Your task to perform on an android device: open app "Microsoft Excel" Image 0: 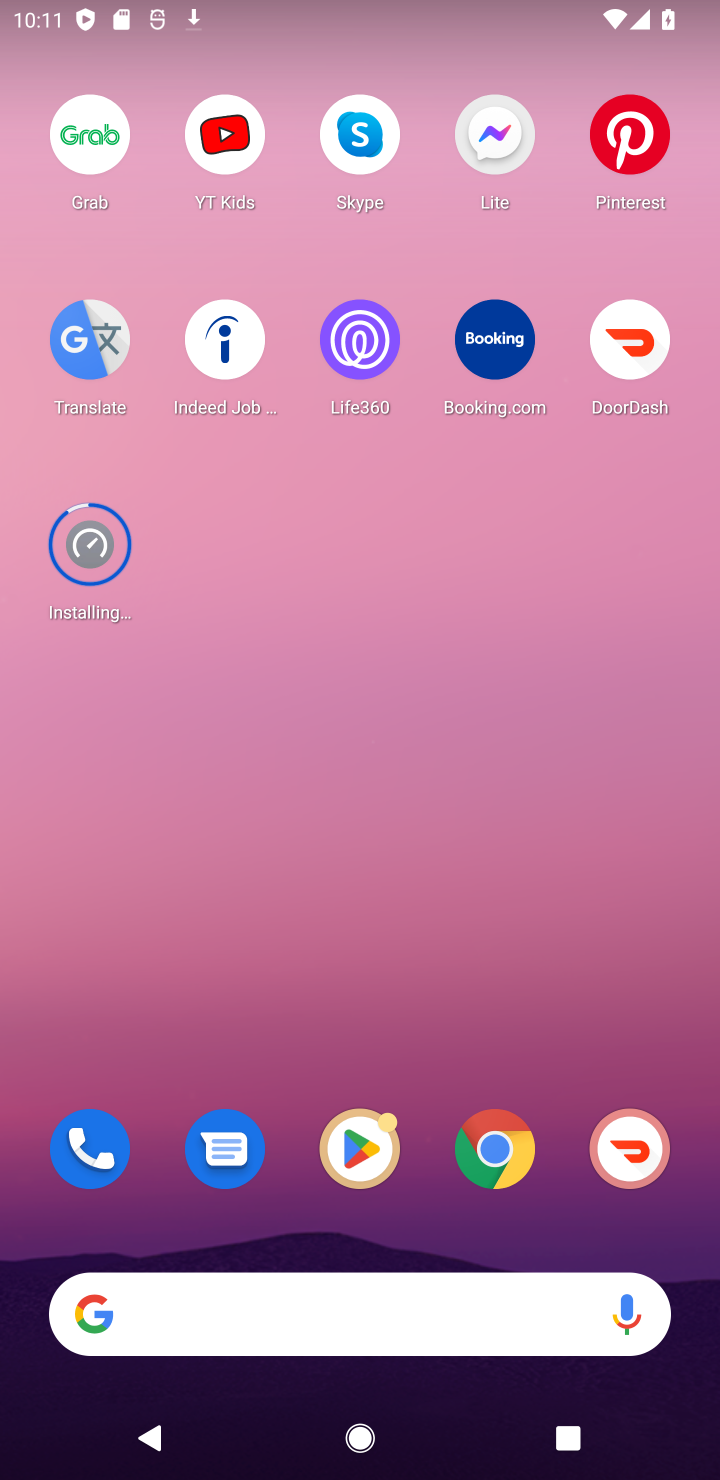
Step 0: click (379, 1136)
Your task to perform on an android device: open app "Microsoft Excel" Image 1: 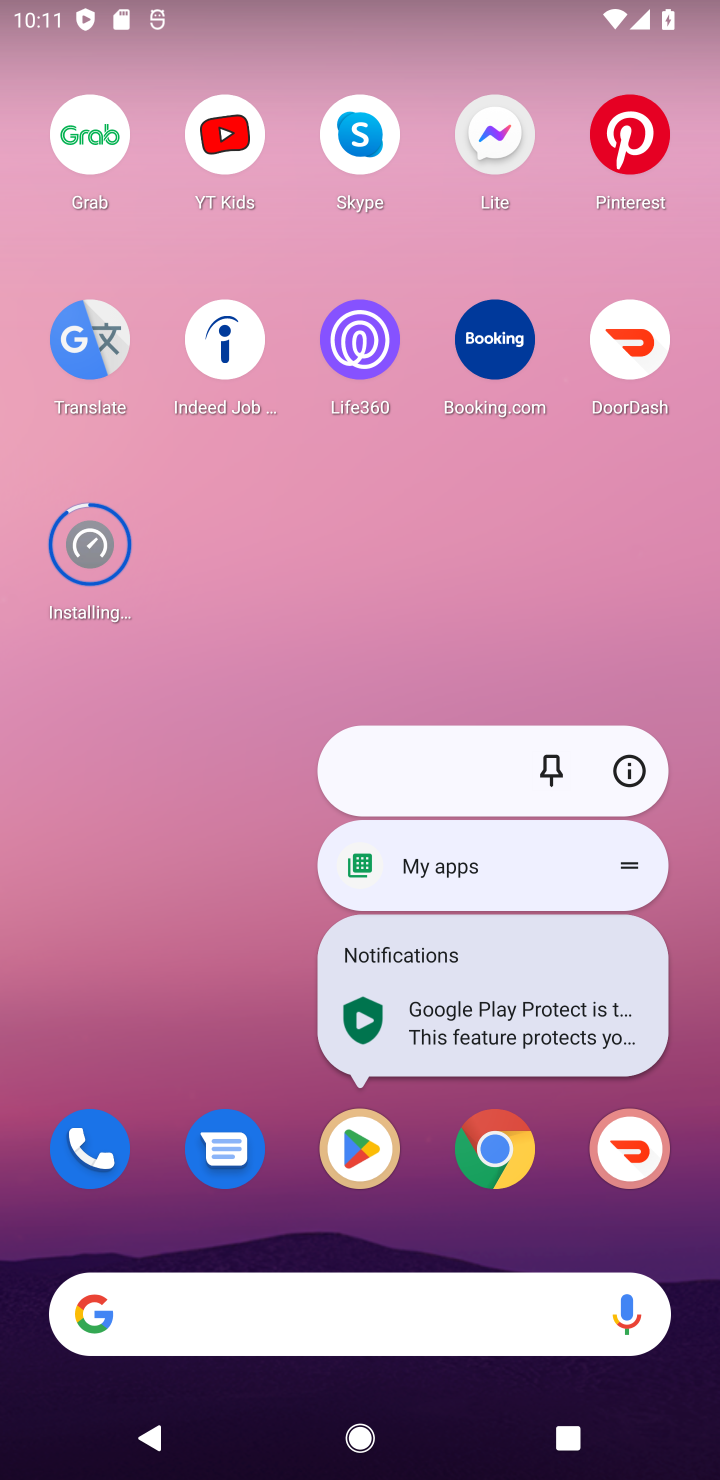
Step 1: click (249, 879)
Your task to perform on an android device: open app "Microsoft Excel" Image 2: 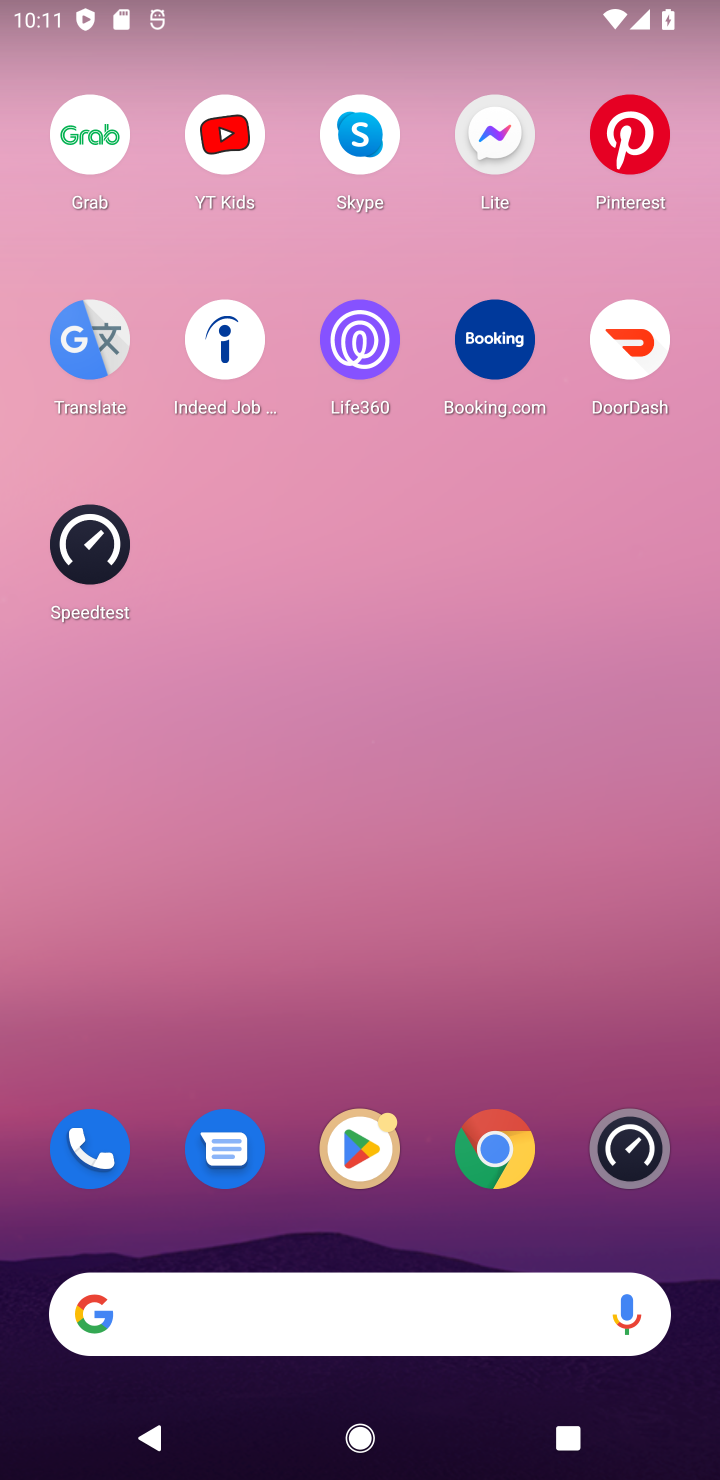
Step 2: click (354, 1151)
Your task to perform on an android device: open app "Microsoft Excel" Image 3: 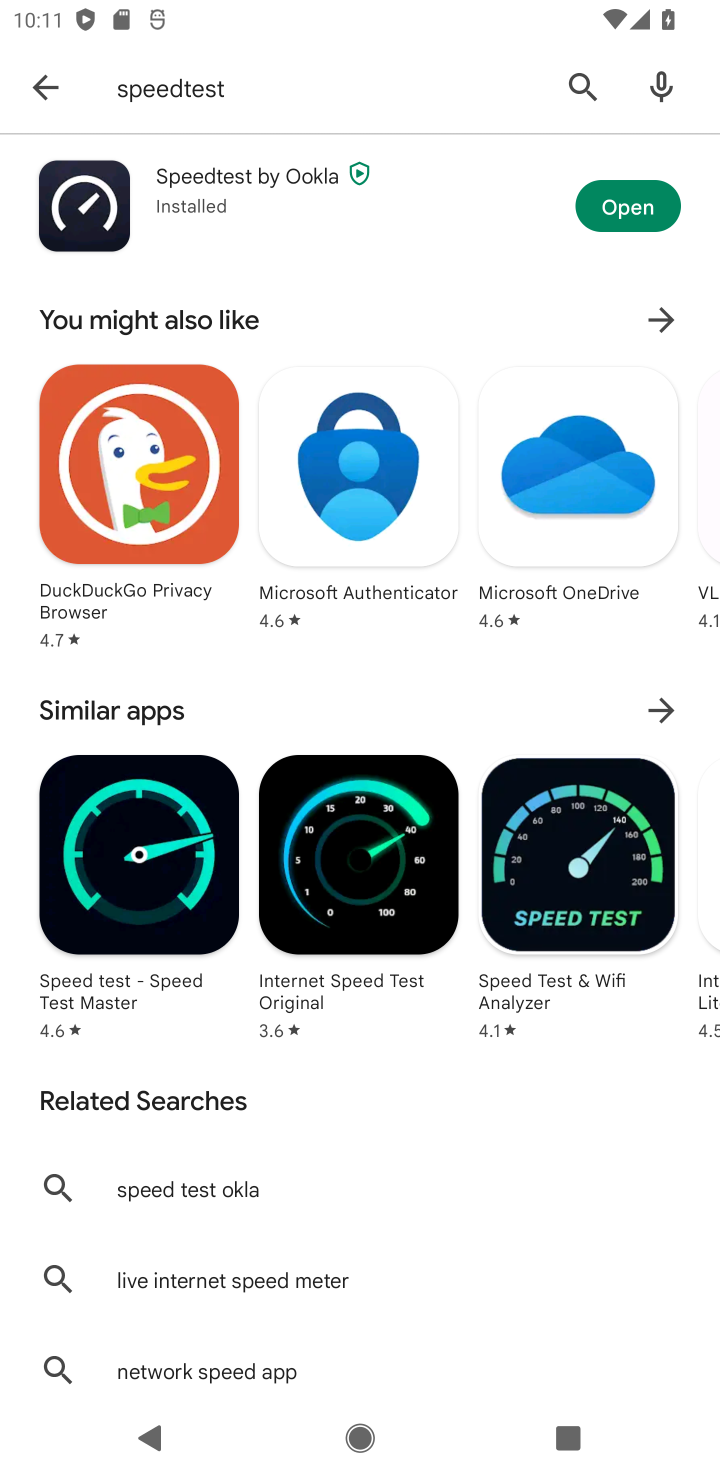
Step 3: click (571, 90)
Your task to perform on an android device: open app "Microsoft Excel" Image 4: 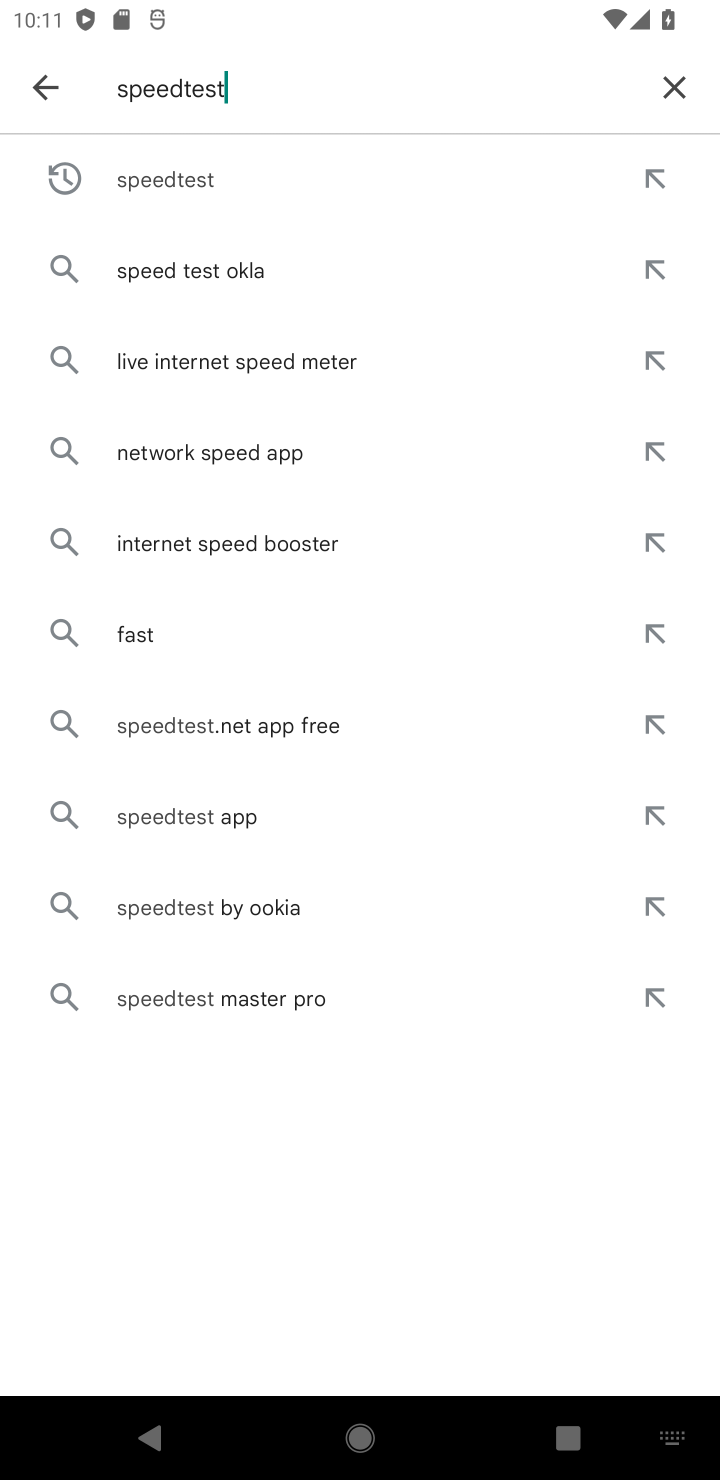
Step 4: click (659, 85)
Your task to perform on an android device: open app "Microsoft Excel" Image 5: 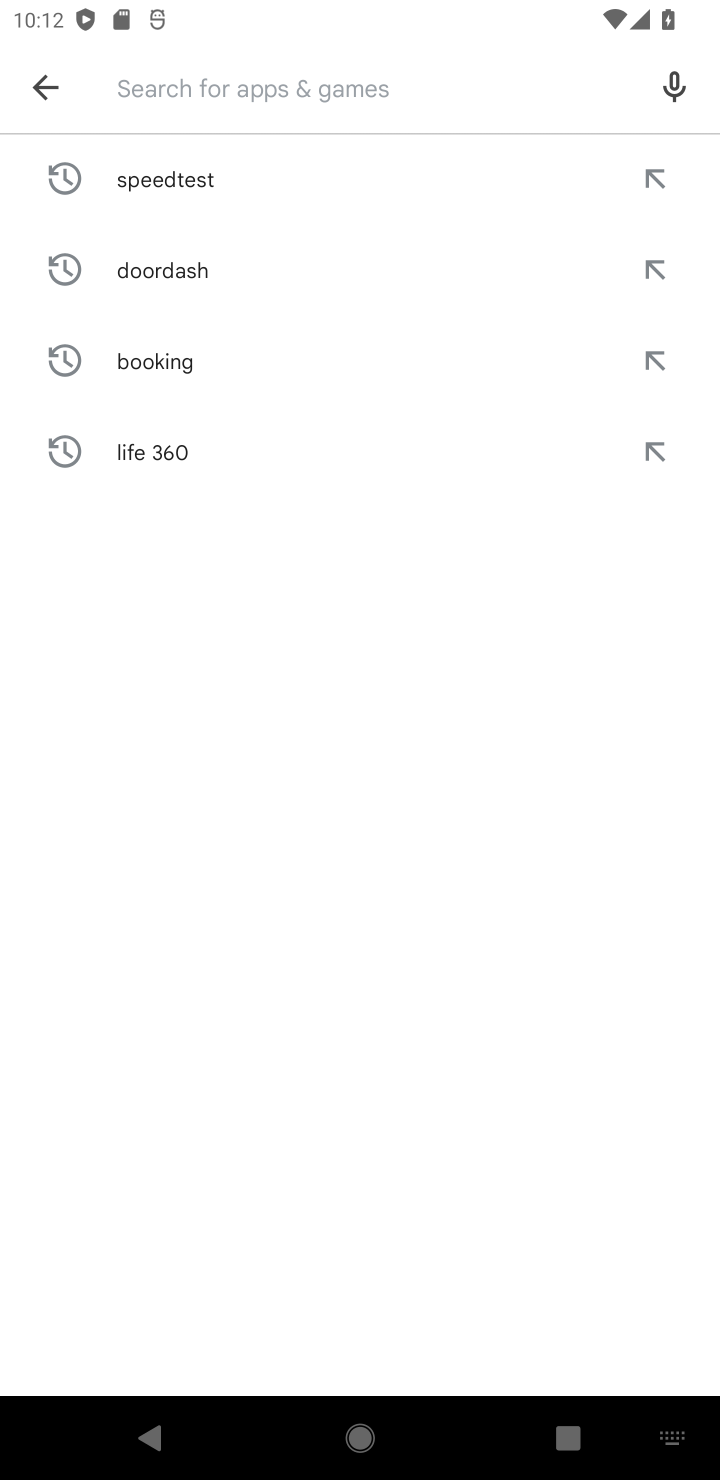
Step 5: type "microsoft"
Your task to perform on an android device: open app "Microsoft Excel" Image 6: 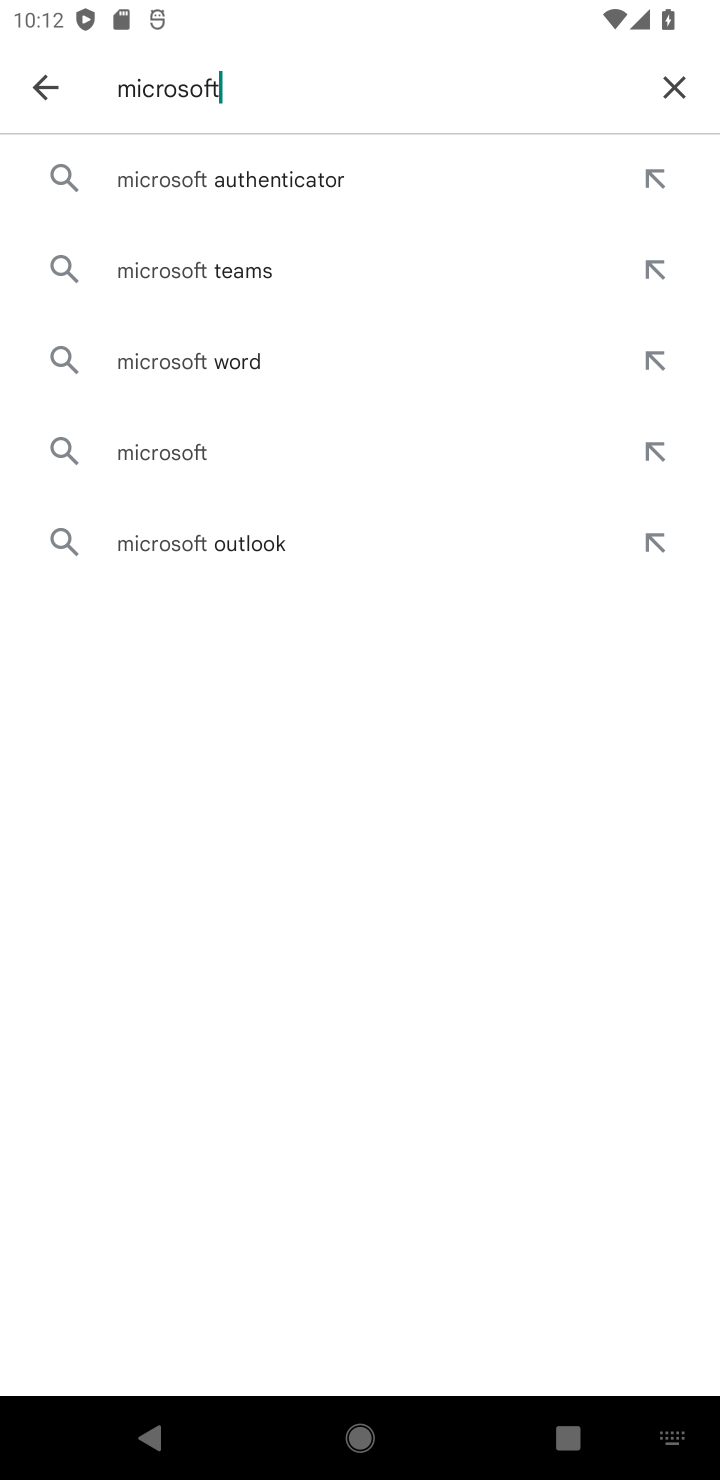
Step 6: type " excel"
Your task to perform on an android device: open app "Microsoft Excel" Image 7: 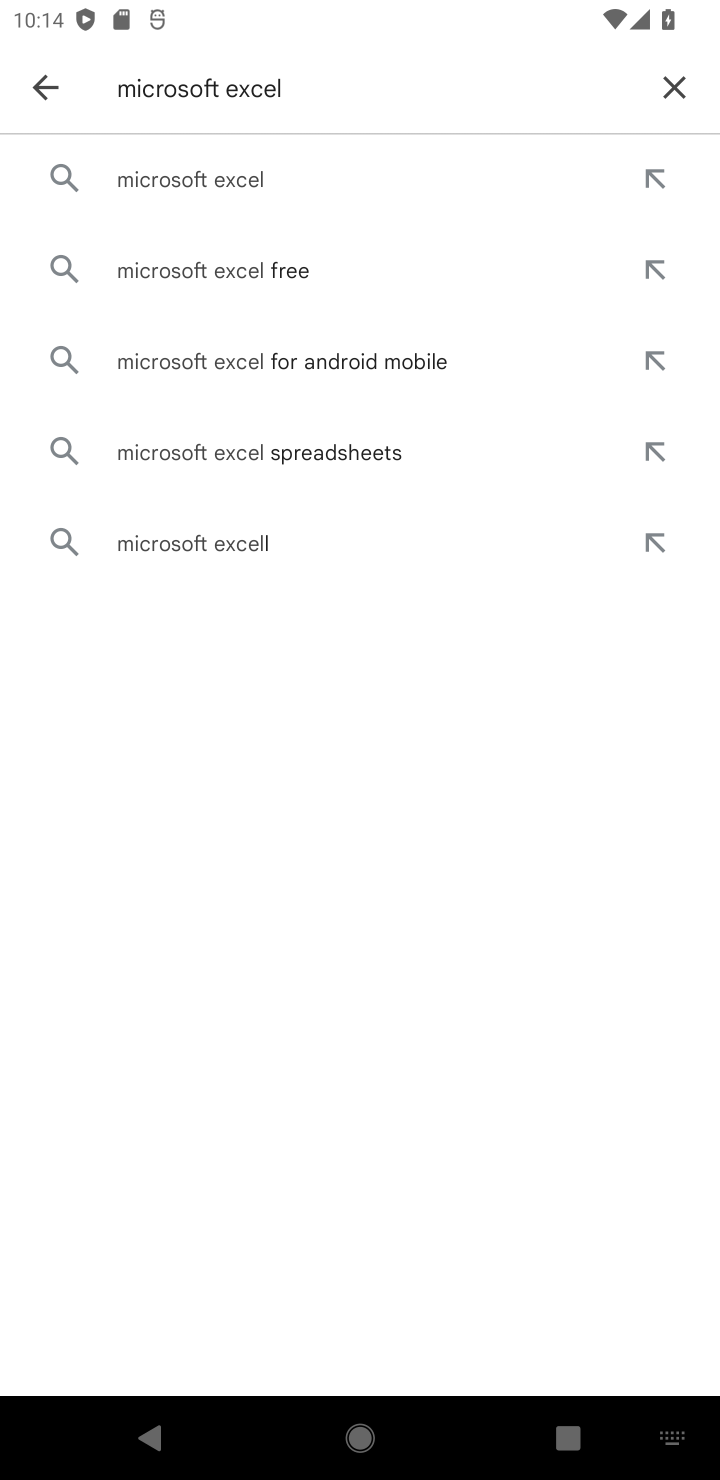
Step 7: click (389, 199)
Your task to perform on an android device: open app "Microsoft Excel" Image 8: 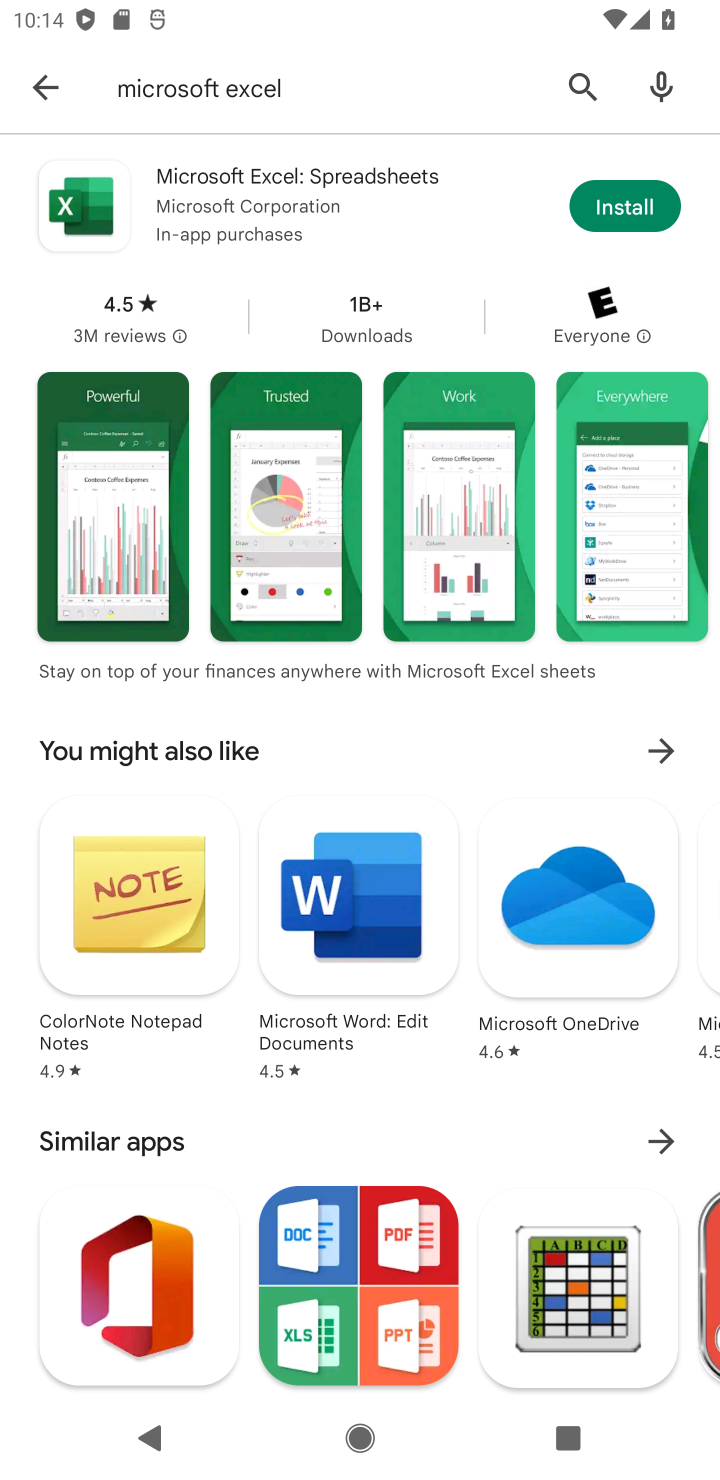
Step 8: click (631, 208)
Your task to perform on an android device: open app "Microsoft Excel" Image 9: 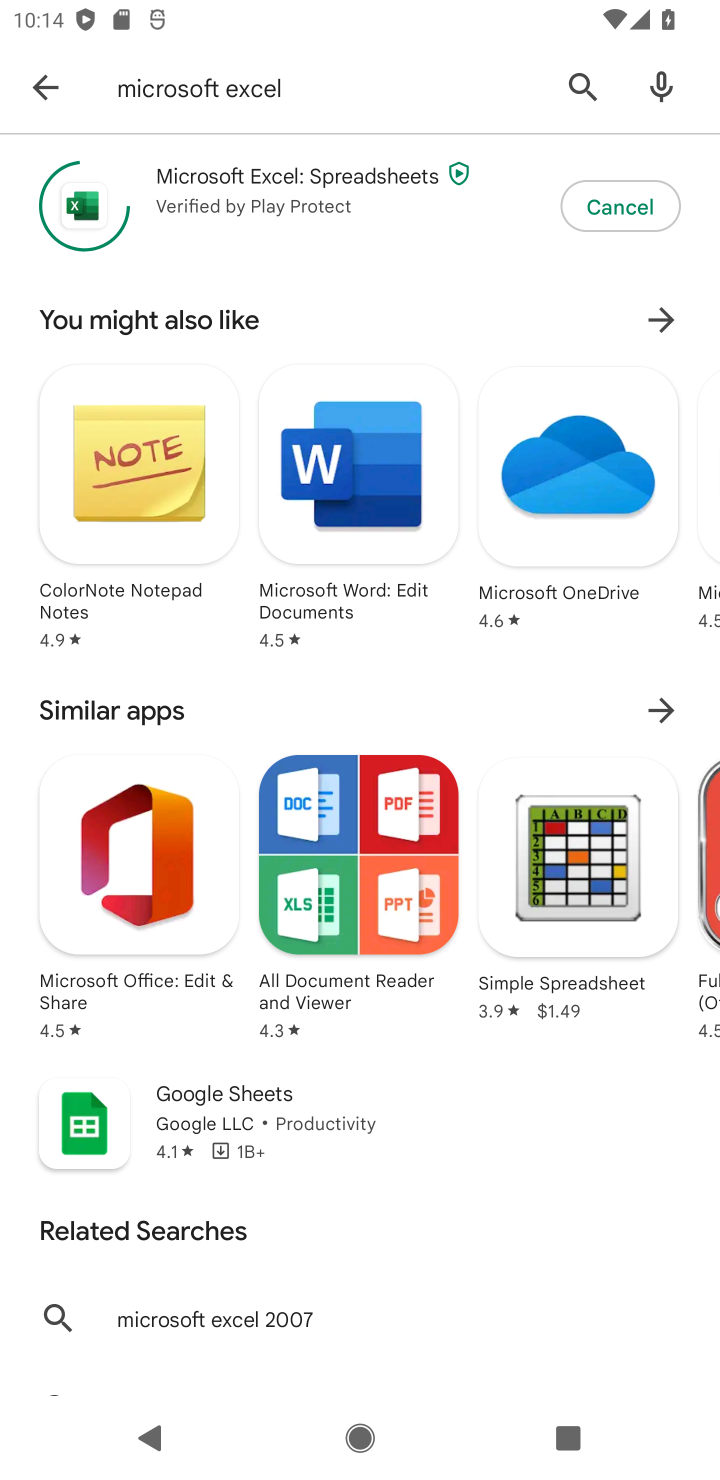
Step 9: task complete